Your task to perform on an android device: install app "Upside-Cash back on gas & food" Image 0: 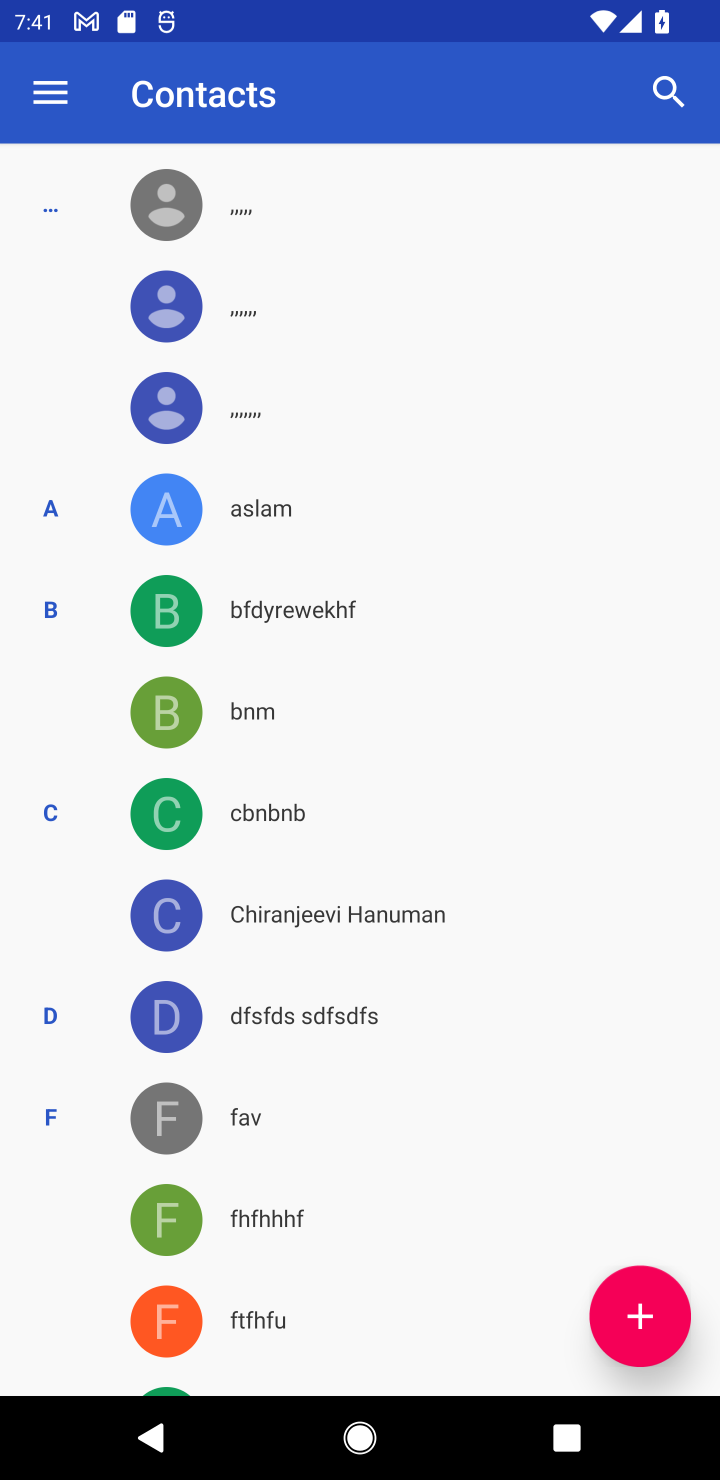
Step 0: press home button
Your task to perform on an android device: install app "Upside-Cash back on gas & food" Image 1: 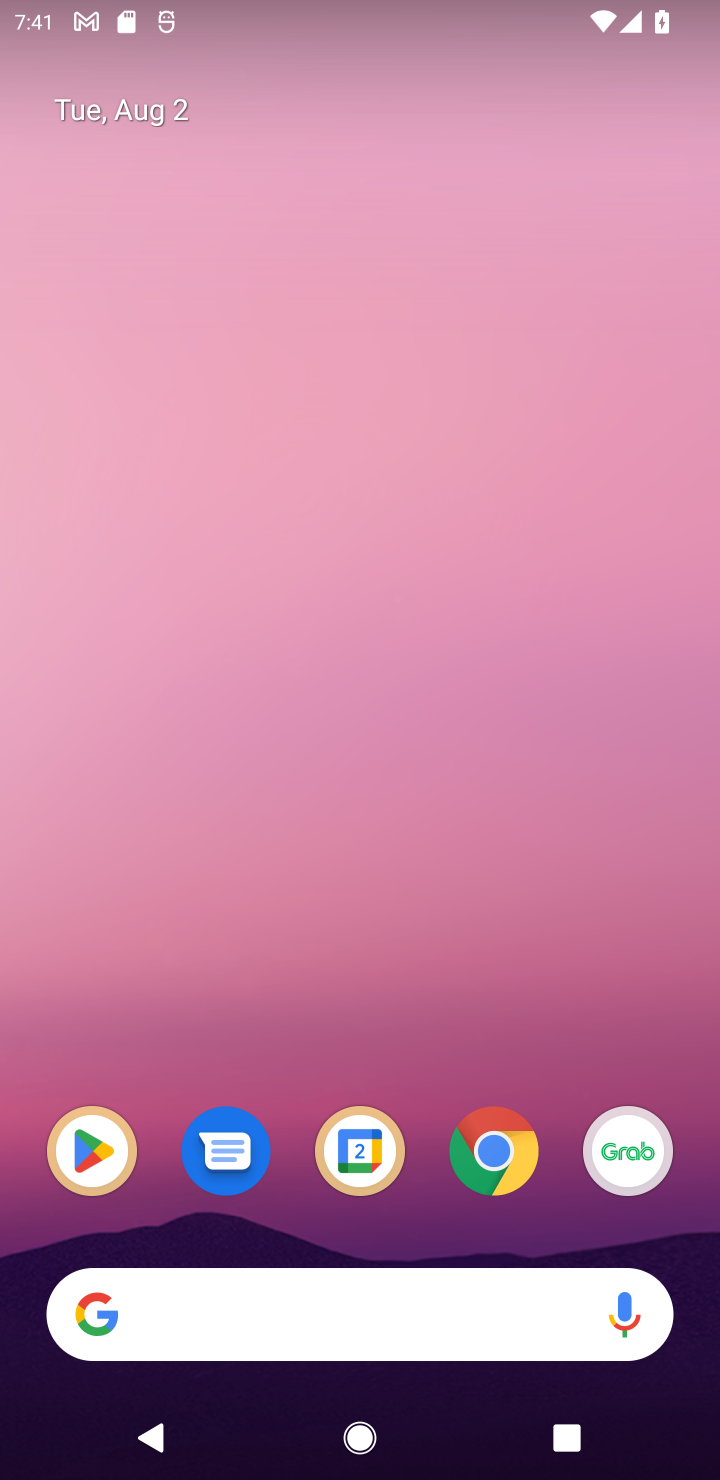
Step 1: drag from (342, 1248) to (235, 4)
Your task to perform on an android device: install app "Upside-Cash back on gas & food" Image 2: 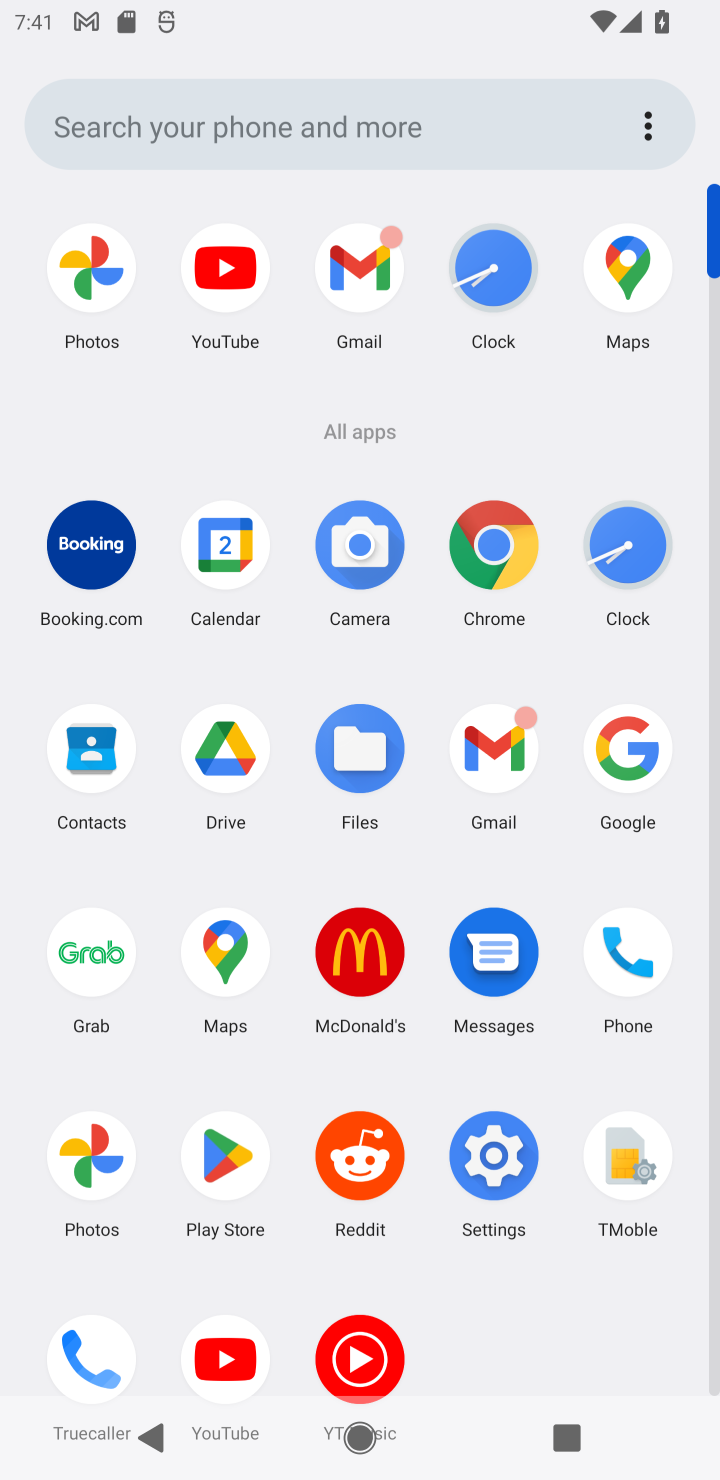
Step 2: click (202, 1169)
Your task to perform on an android device: install app "Upside-Cash back on gas & food" Image 3: 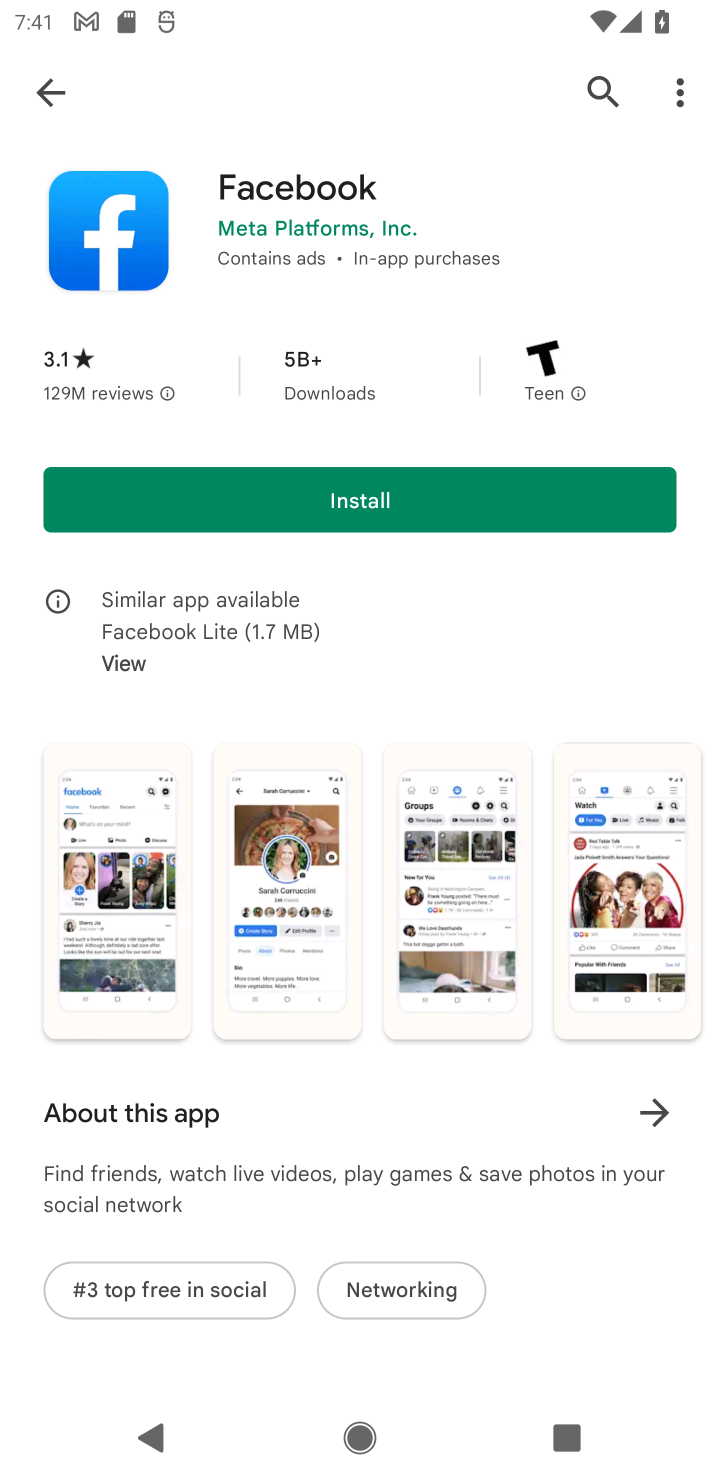
Step 3: click (81, 90)
Your task to perform on an android device: install app "Upside-Cash back on gas & food" Image 4: 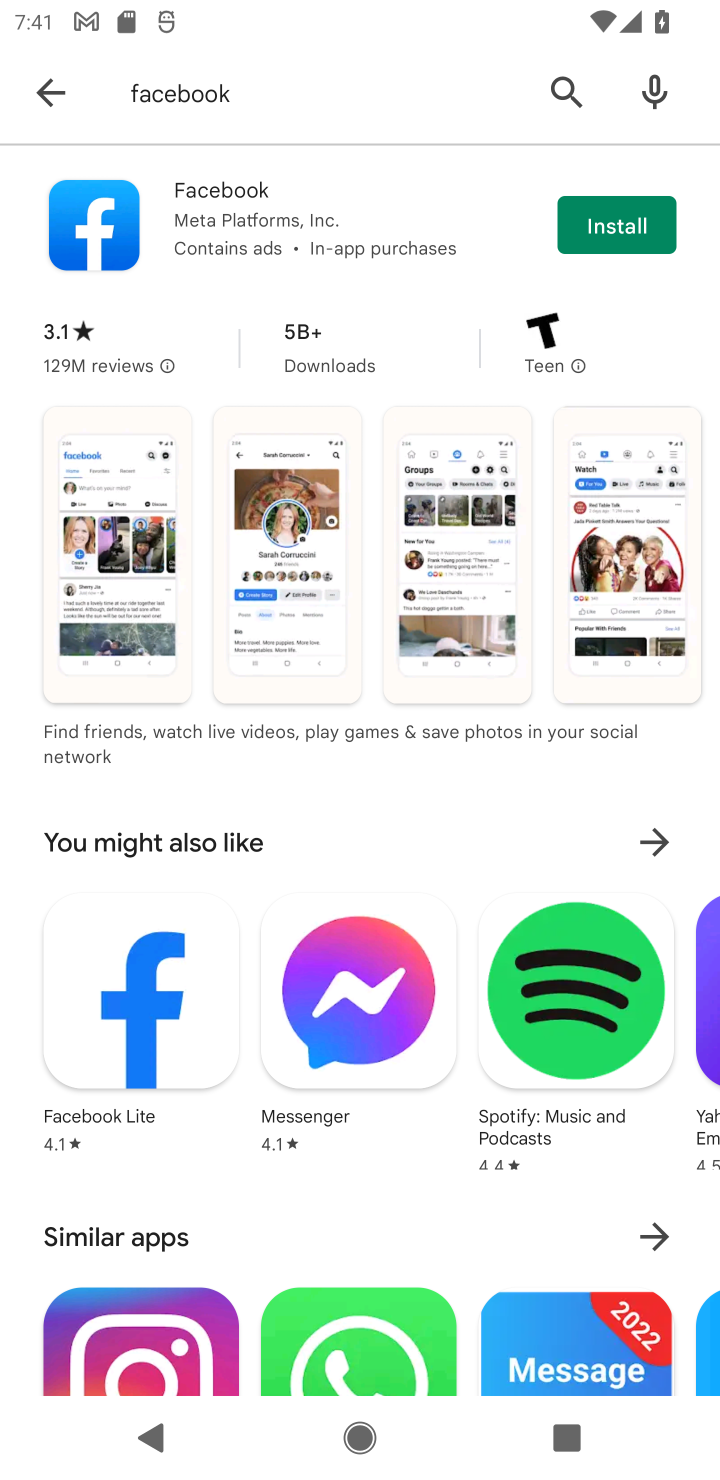
Step 4: click (47, 79)
Your task to perform on an android device: install app "Upside-Cash back on gas & food" Image 5: 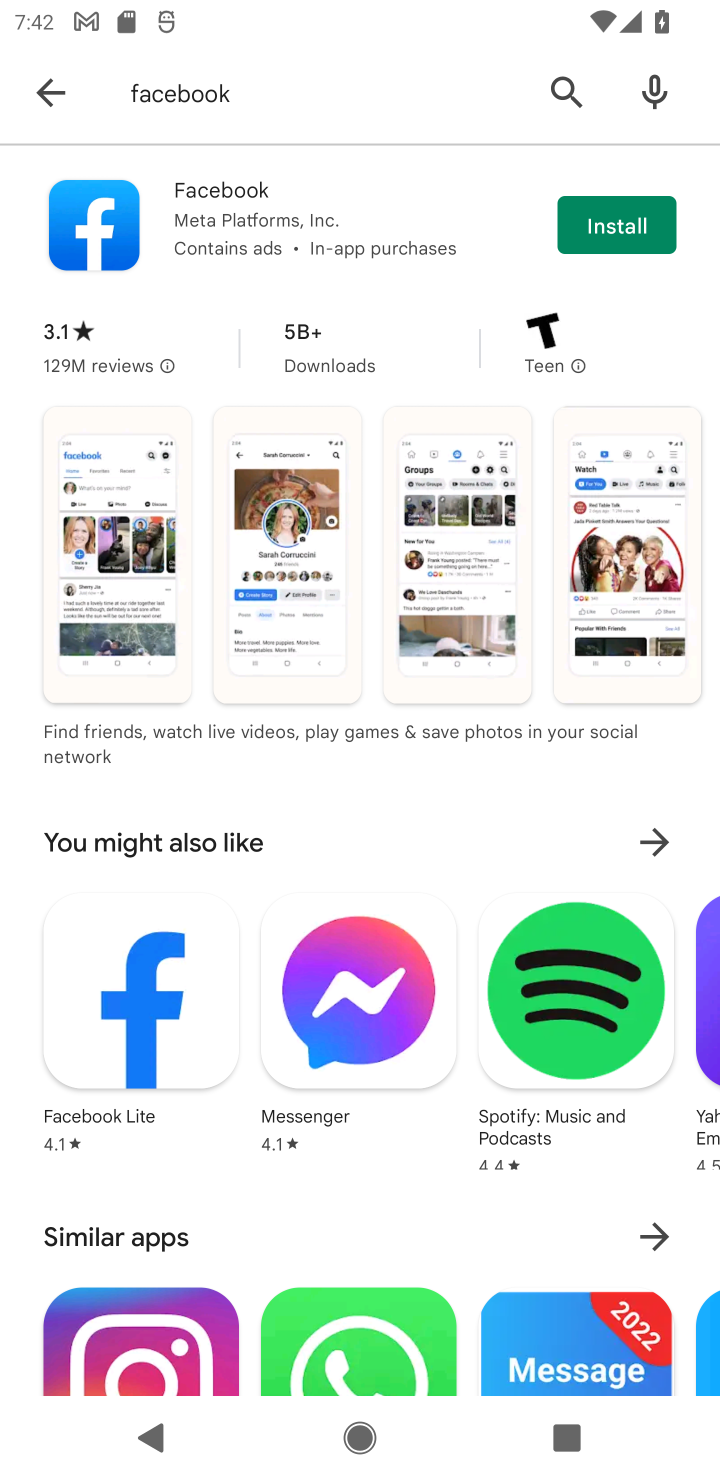
Step 5: click (54, 100)
Your task to perform on an android device: install app "Upside-Cash back on gas & food" Image 6: 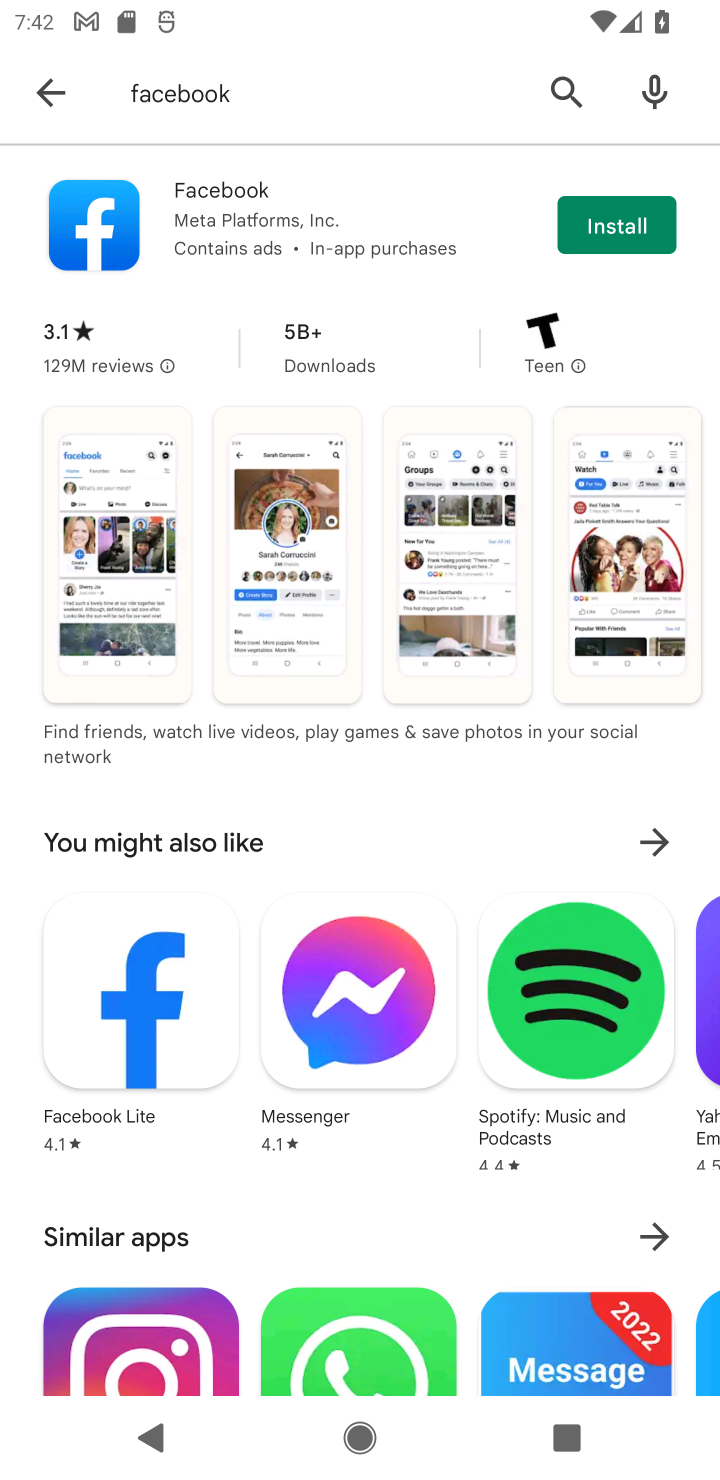
Step 6: click (49, 94)
Your task to perform on an android device: install app "Upside-Cash back on gas & food" Image 7: 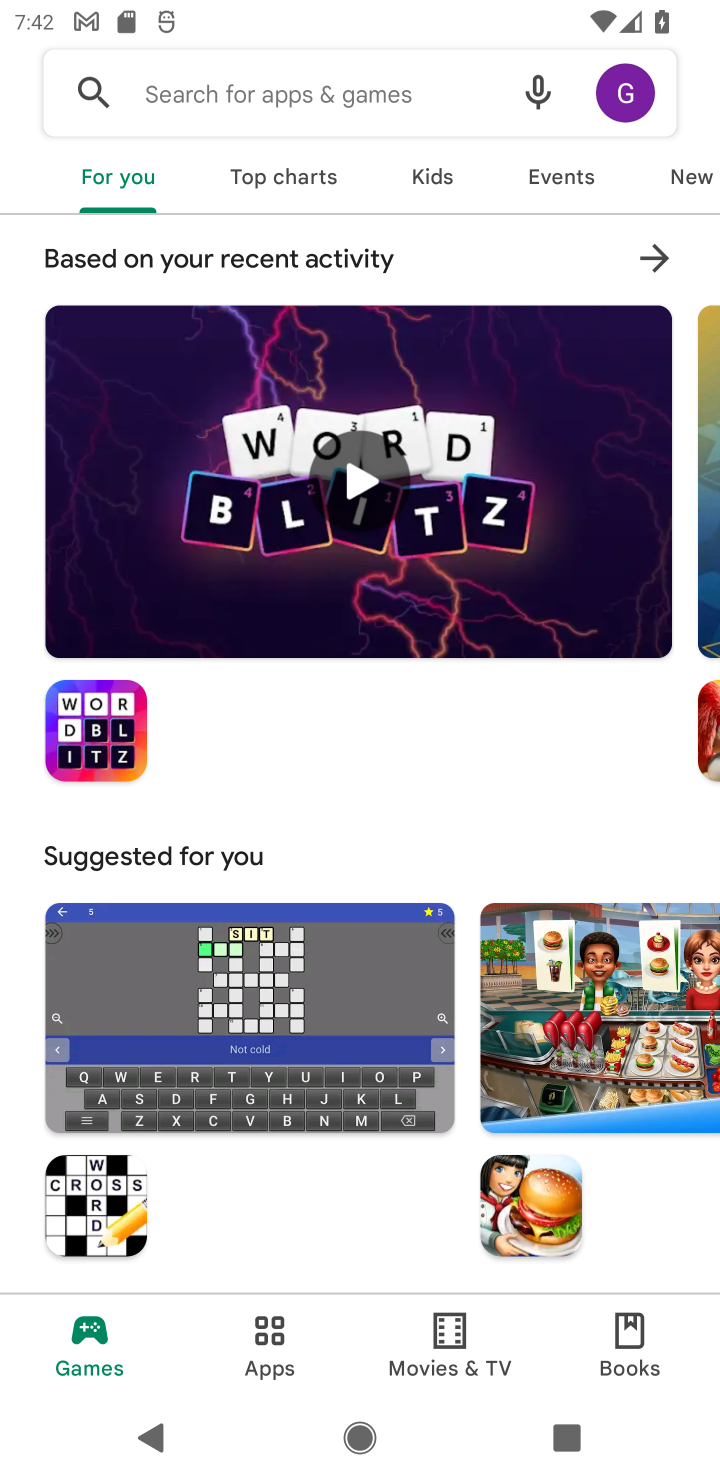
Step 7: click (163, 120)
Your task to perform on an android device: install app "Upside-Cash back on gas & food" Image 8: 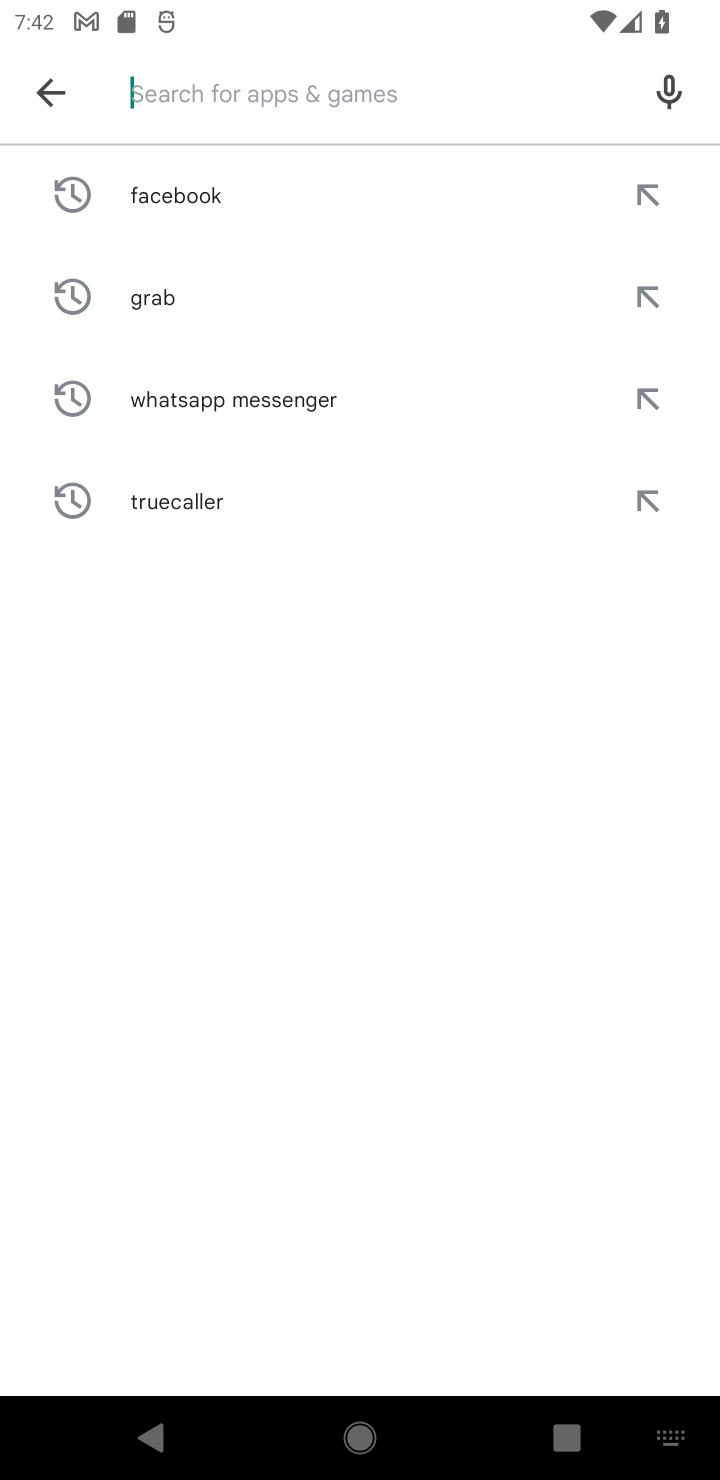
Step 8: type "Upside"
Your task to perform on an android device: install app "Upside-Cash back on gas & food" Image 9: 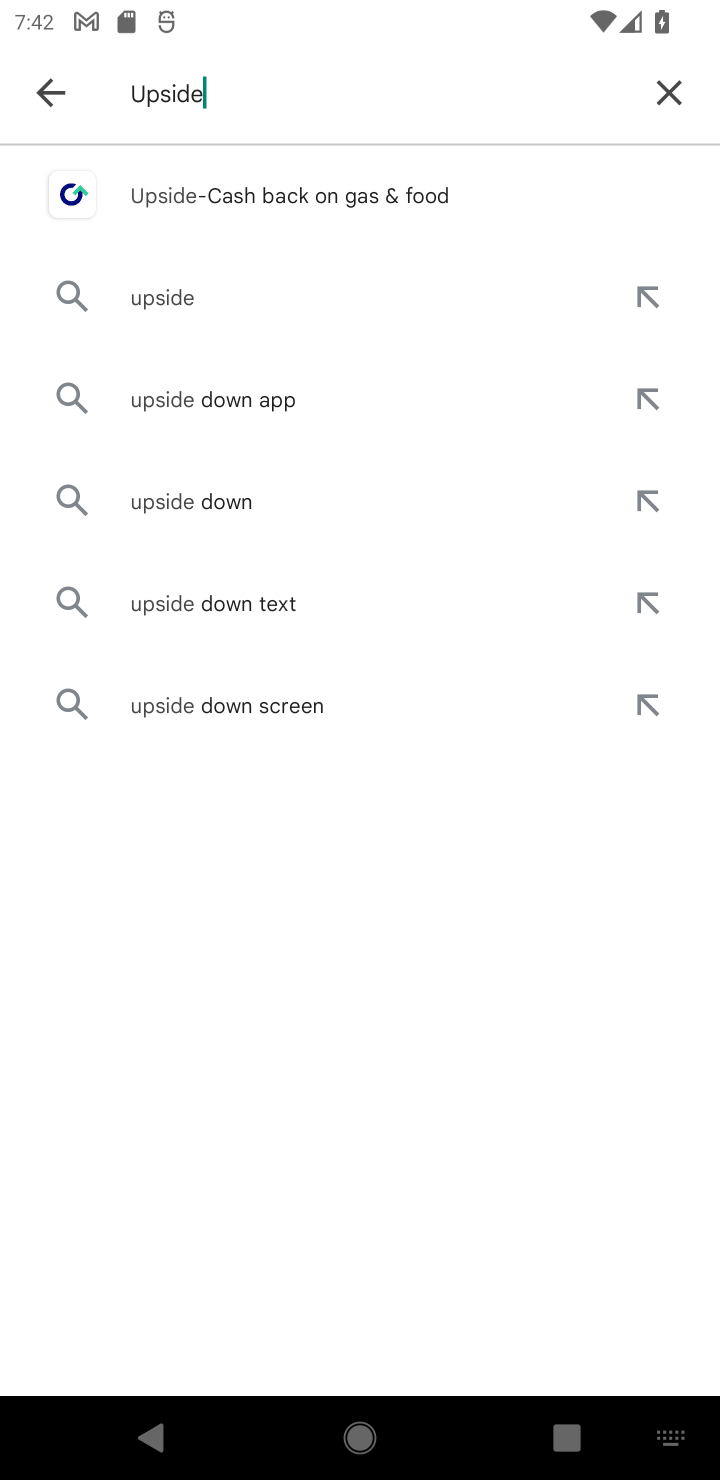
Step 9: click (151, 189)
Your task to perform on an android device: install app "Upside-Cash back on gas & food" Image 10: 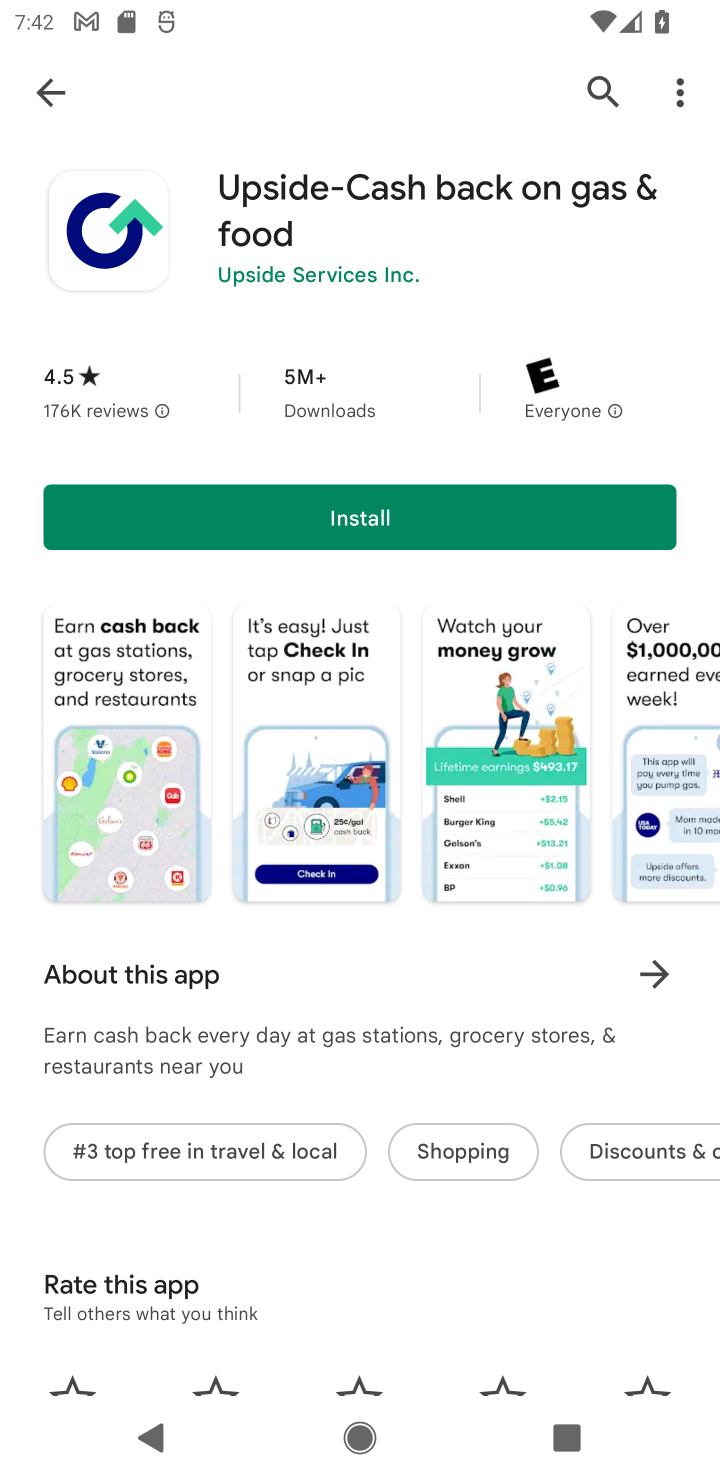
Step 10: click (180, 530)
Your task to perform on an android device: install app "Upside-Cash back on gas & food" Image 11: 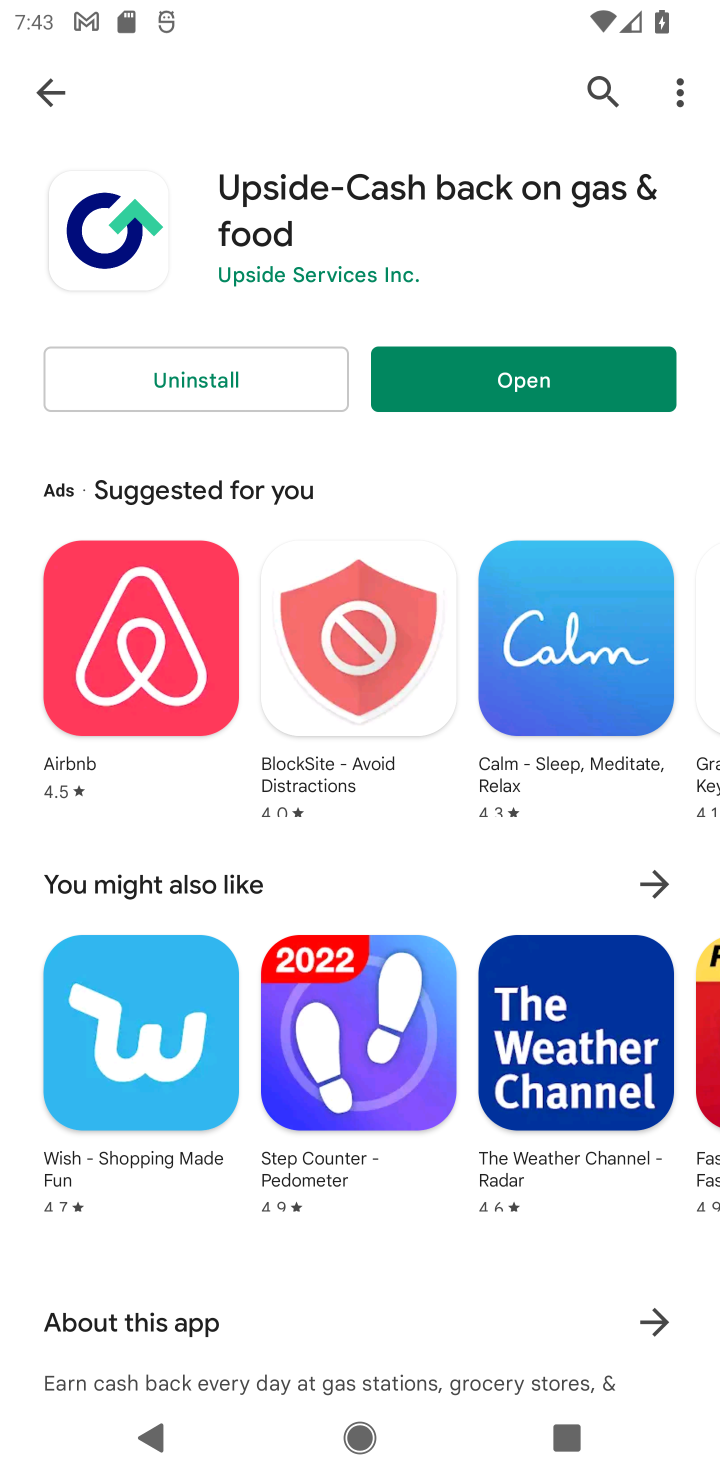
Step 11: click (631, 354)
Your task to perform on an android device: install app "Upside-Cash back on gas & food" Image 12: 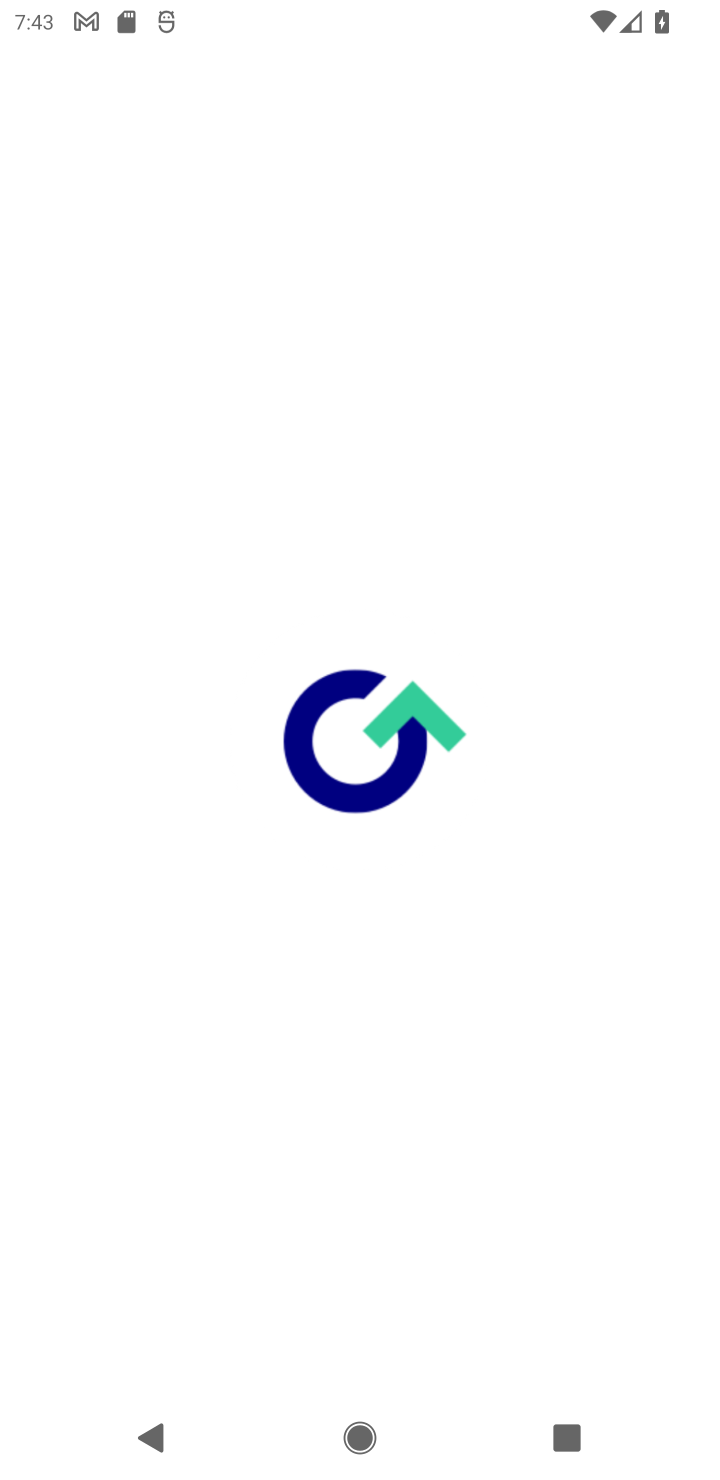
Step 12: task complete